Your task to perform on an android device: Open Android settings Image 0: 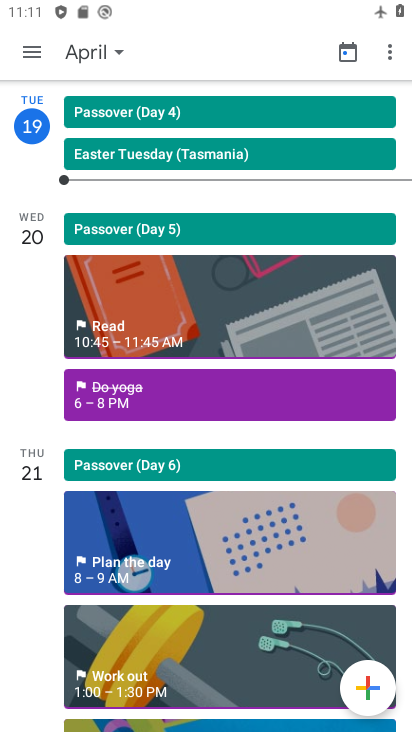
Step 0: press home button
Your task to perform on an android device: Open Android settings Image 1: 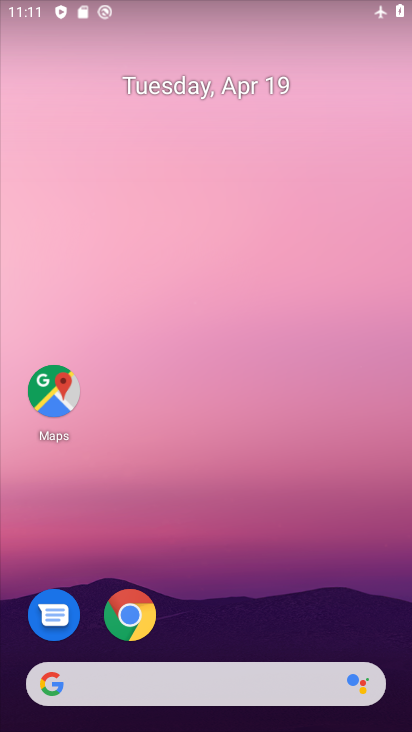
Step 1: drag from (210, 606) to (242, 167)
Your task to perform on an android device: Open Android settings Image 2: 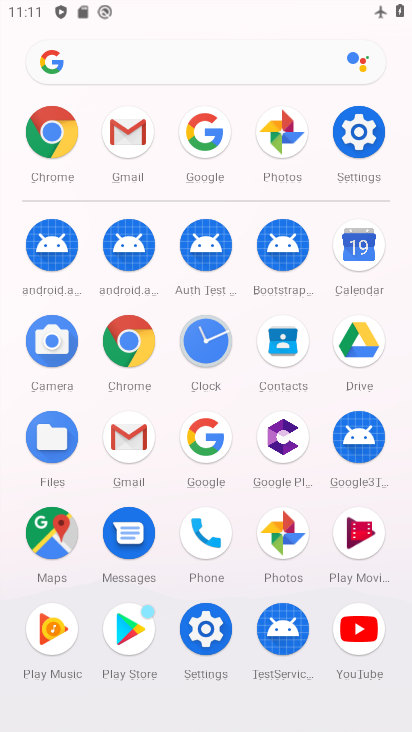
Step 2: click (346, 136)
Your task to perform on an android device: Open Android settings Image 3: 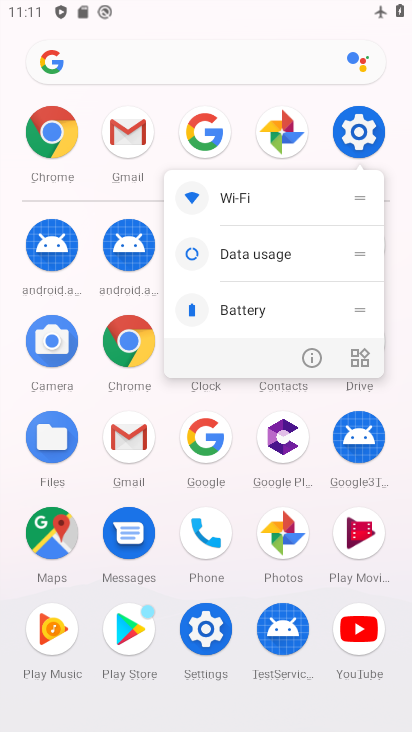
Step 3: click (346, 136)
Your task to perform on an android device: Open Android settings Image 4: 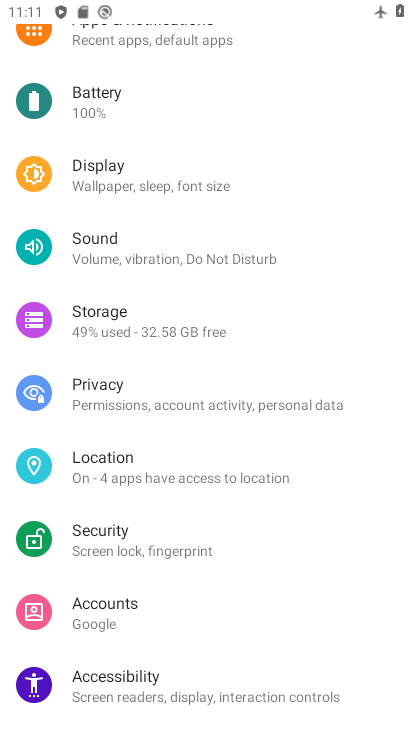
Step 4: drag from (219, 607) to (245, 194)
Your task to perform on an android device: Open Android settings Image 5: 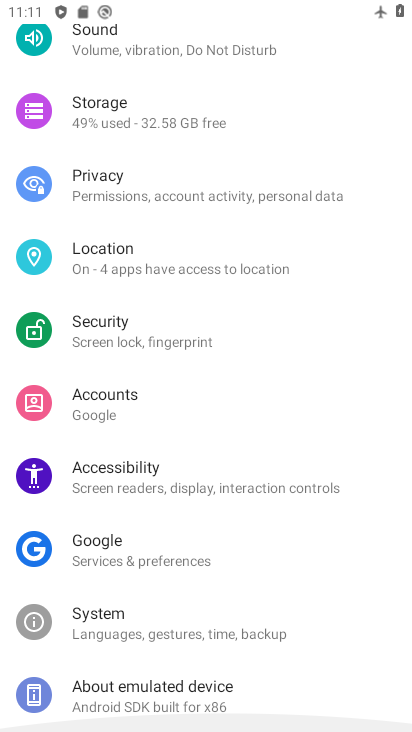
Step 5: drag from (187, 587) to (253, 193)
Your task to perform on an android device: Open Android settings Image 6: 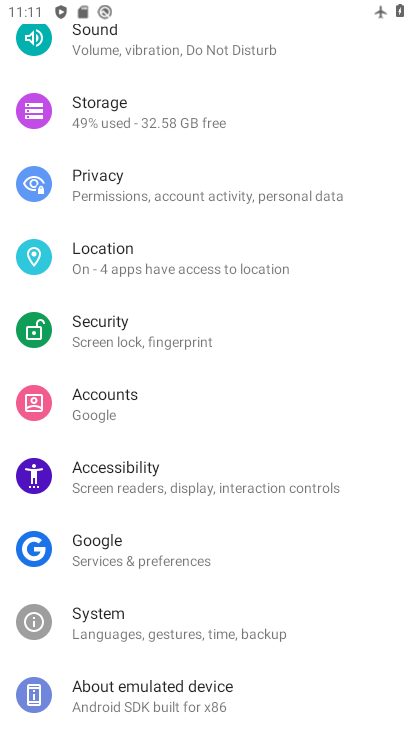
Step 6: click (178, 691)
Your task to perform on an android device: Open Android settings Image 7: 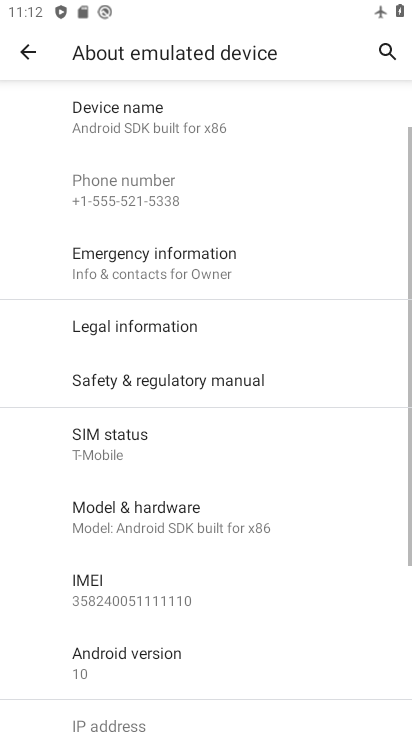
Step 7: task complete